Your task to perform on an android device: Search for custom made wallets on etsy.com Image 0: 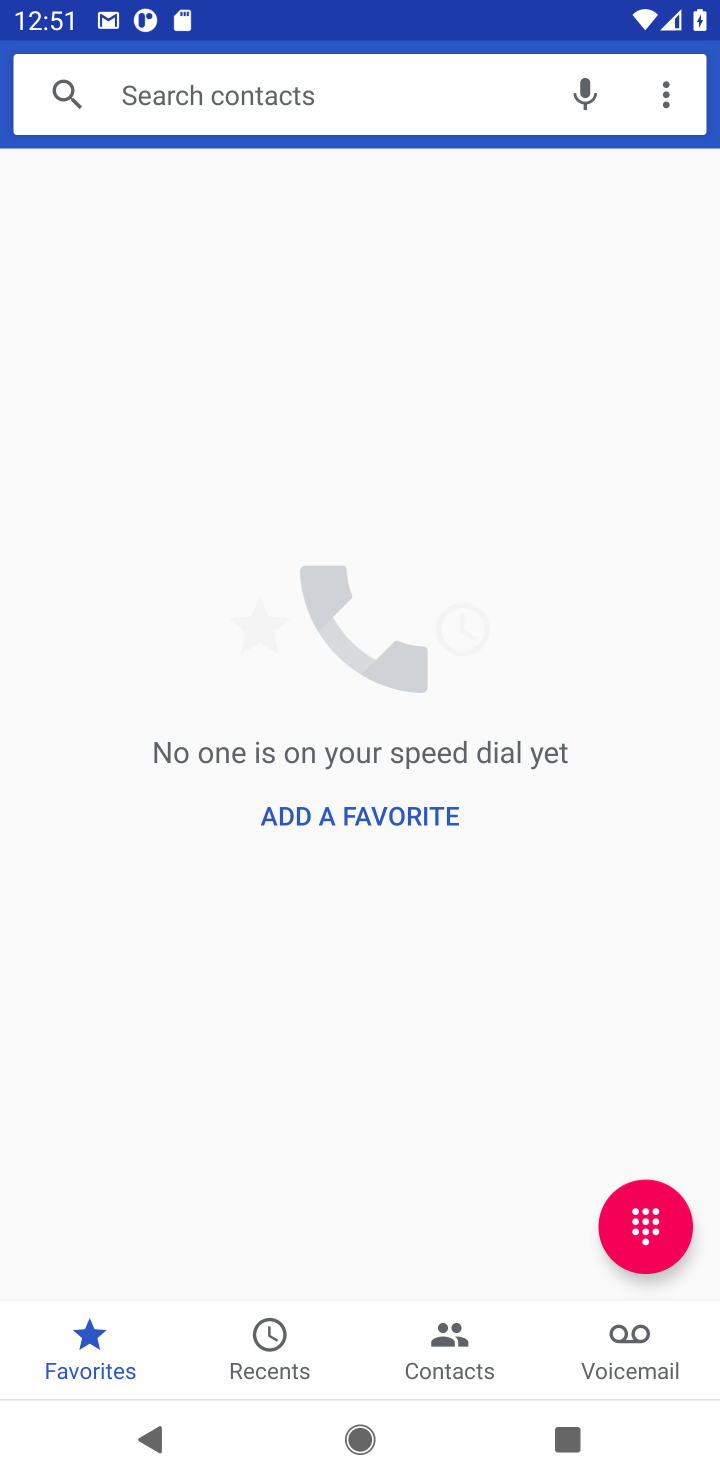
Step 0: click (654, 1242)
Your task to perform on an android device: Search for custom made wallets on etsy.com Image 1: 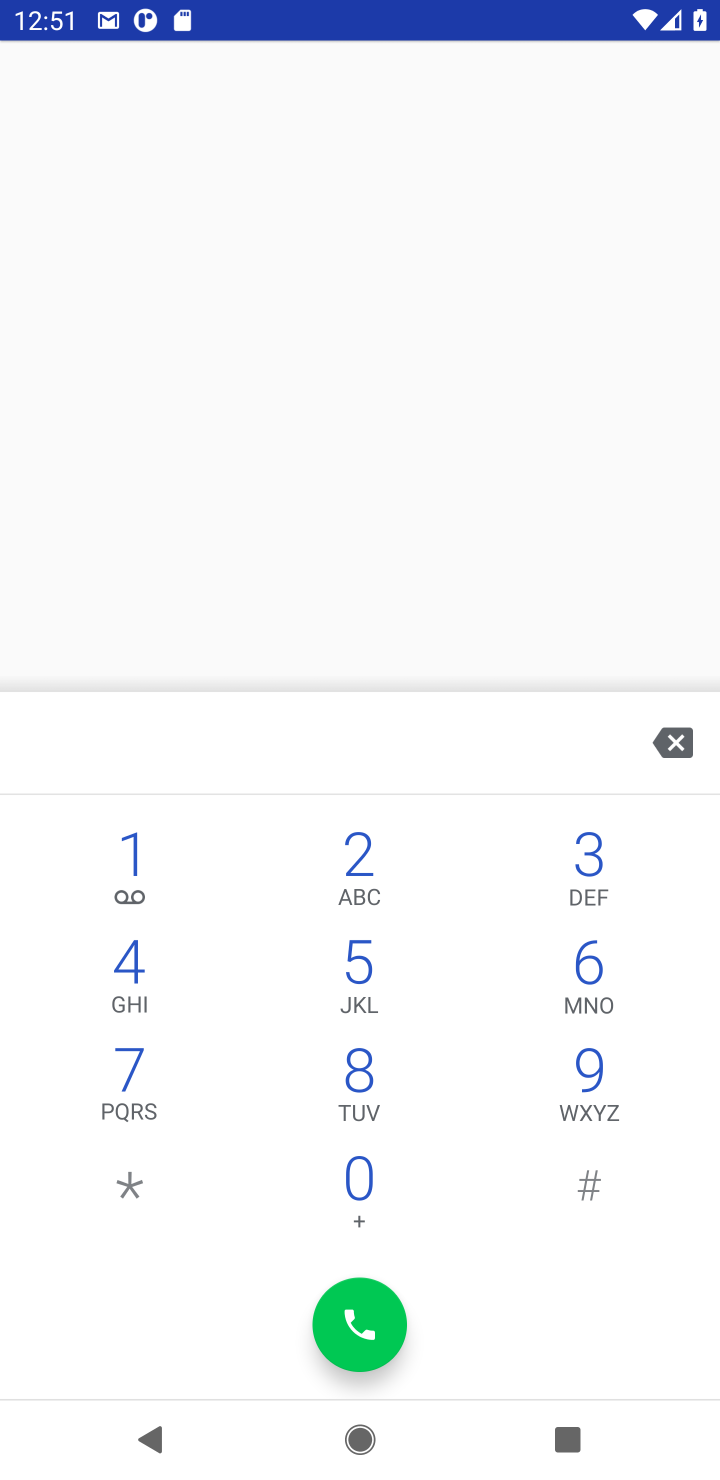
Step 1: task complete